Your task to perform on an android device: all mails in gmail Image 0: 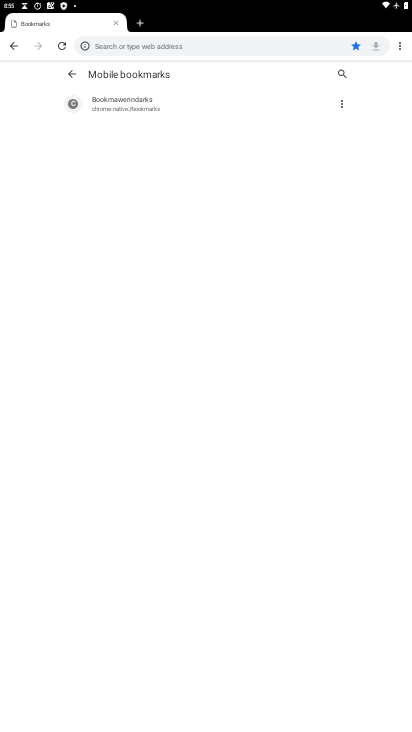
Step 0: click (249, 699)
Your task to perform on an android device: all mails in gmail Image 1: 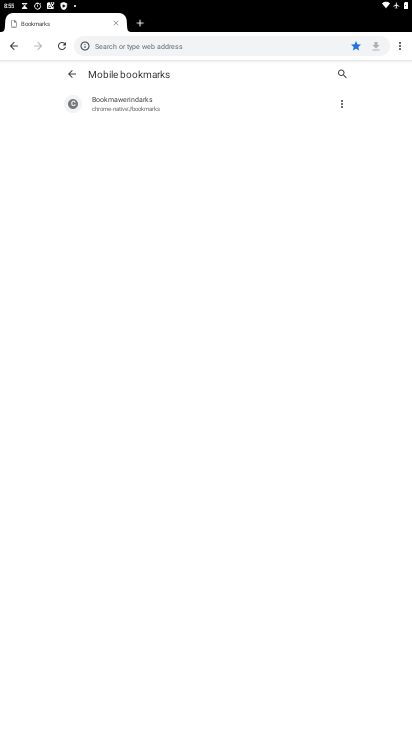
Step 1: press home button
Your task to perform on an android device: all mails in gmail Image 2: 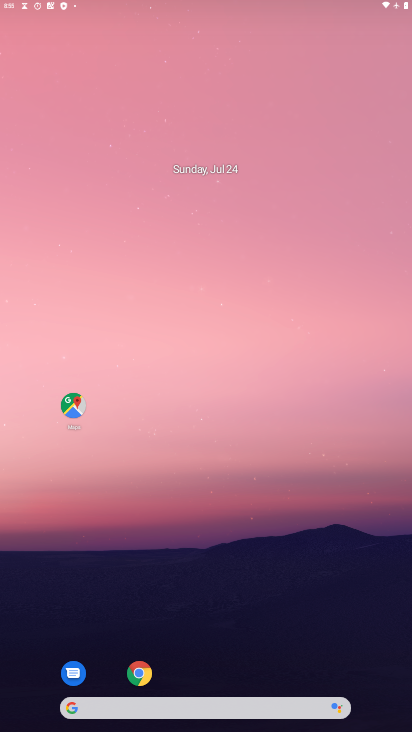
Step 2: press home button
Your task to perform on an android device: all mails in gmail Image 3: 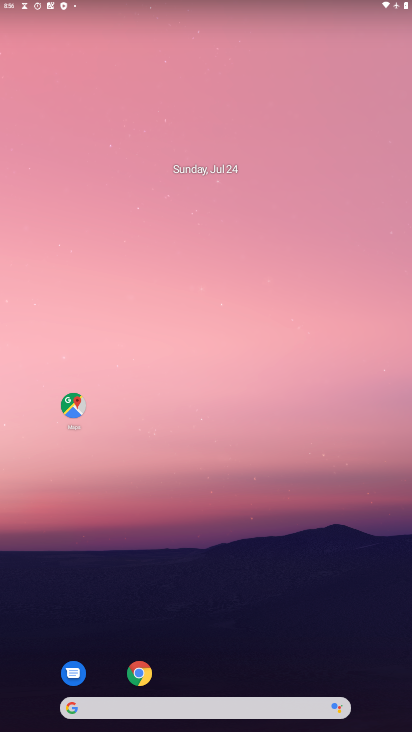
Step 3: drag from (243, 354) to (244, 194)
Your task to perform on an android device: all mails in gmail Image 4: 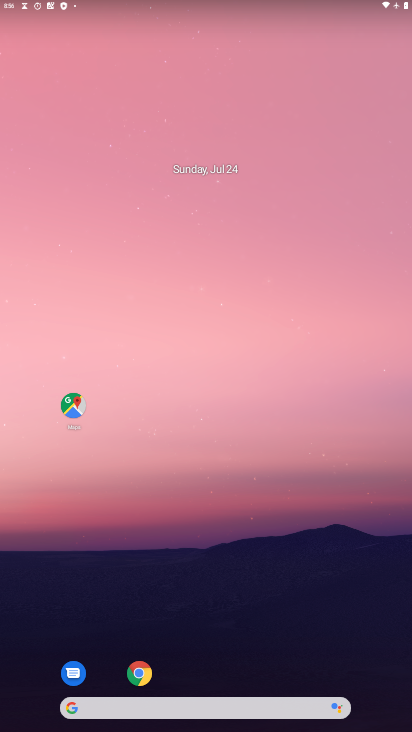
Step 4: drag from (188, 641) to (271, 229)
Your task to perform on an android device: all mails in gmail Image 5: 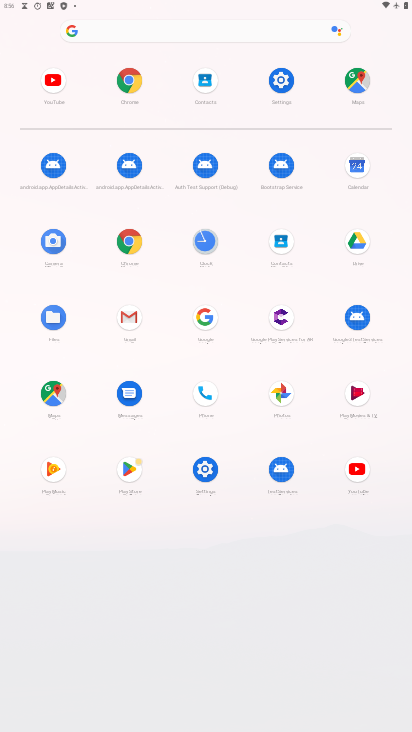
Step 5: click (132, 315)
Your task to perform on an android device: all mails in gmail Image 6: 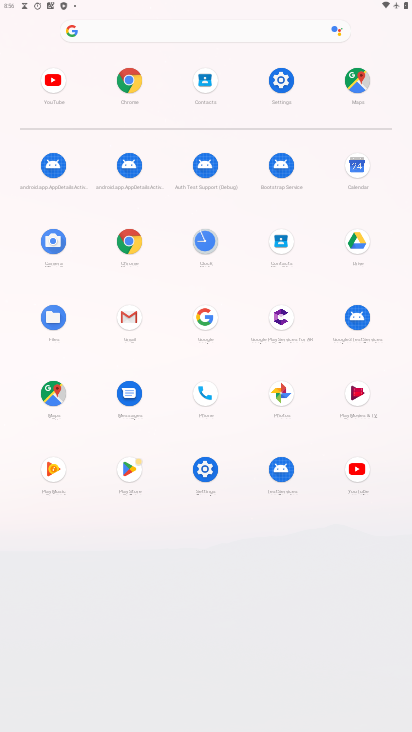
Step 6: click (132, 315)
Your task to perform on an android device: all mails in gmail Image 7: 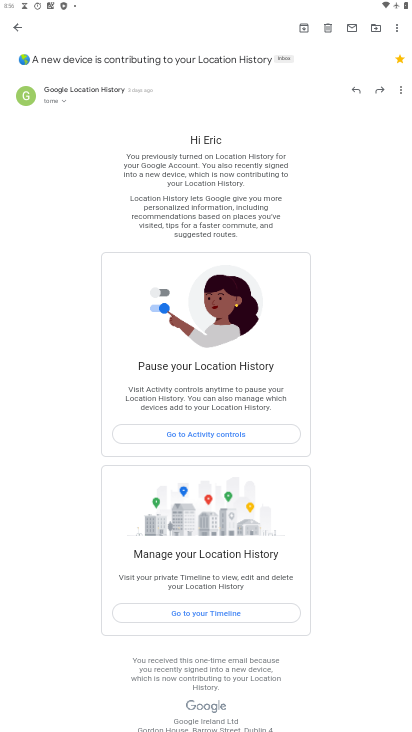
Step 7: drag from (277, 492) to (332, 130)
Your task to perform on an android device: all mails in gmail Image 8: 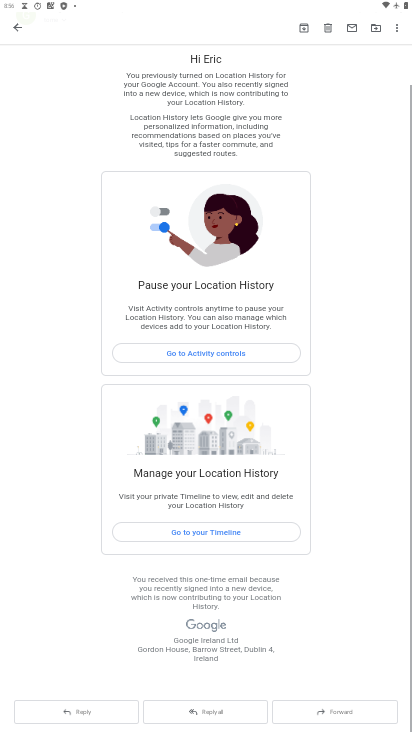
Step 8: drag from (142, 252) to (274, 729)
Your task to perform on an android device: all mails in gmail Image 9: 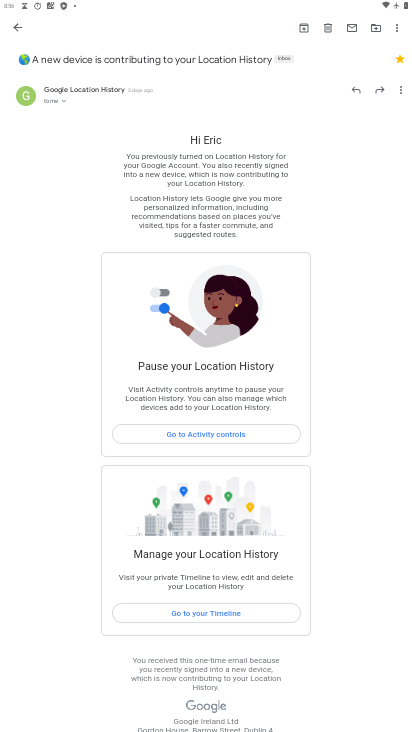
Step 9: click (16, 25)
Your task to perform on an android device: all mails in gmail Image 10: 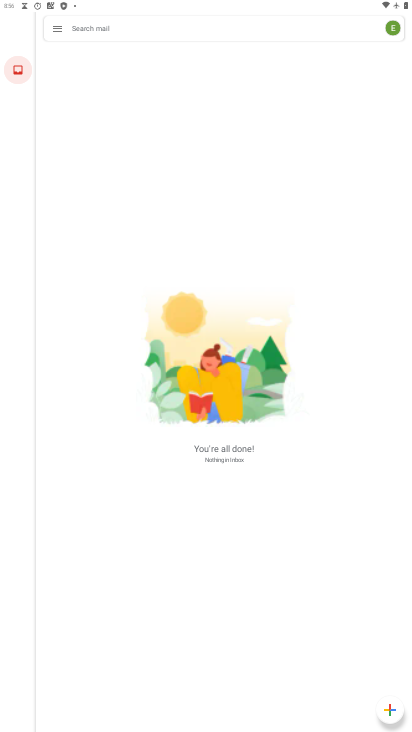
Step 10: click (49, 24)
Your task to perform on an android device: all mails in gmail Image 11: 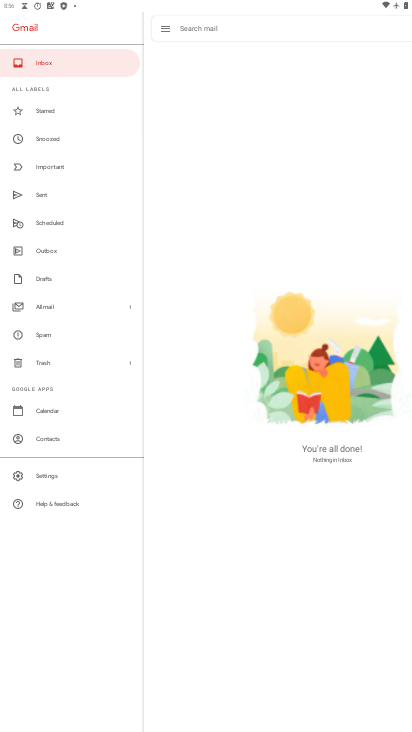
Step 11: click (59, 468)
Your task to perform on an android device: all mails in gmail Image 12: 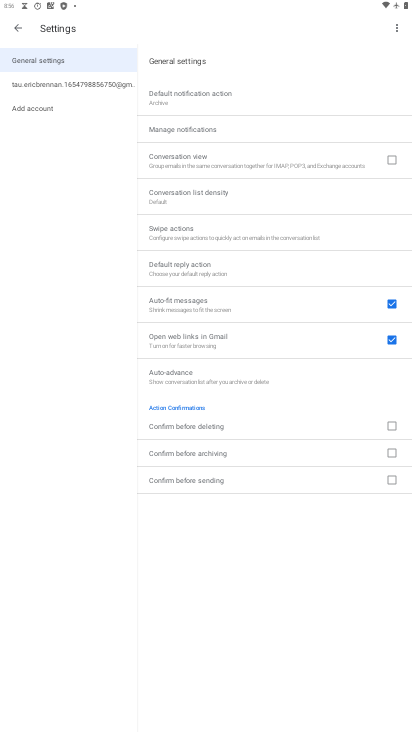
Step 12: drag from (244, 497) to (248, 178)
Your task to perform on an android device: all mails in gmail Image 13: 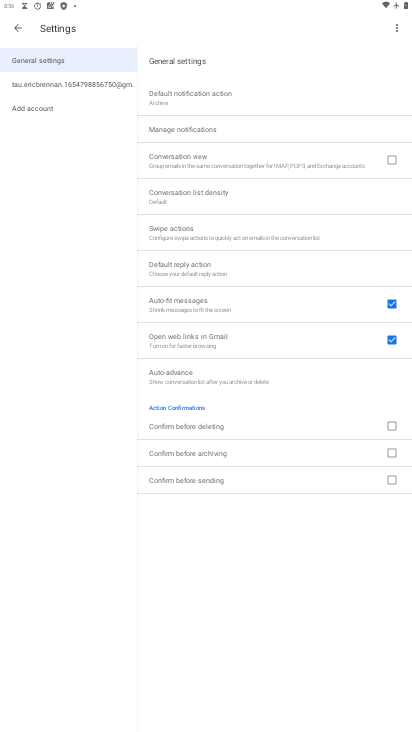
Step 13: click (86, 84)
Your task to perform on an android device: all mails in gmail Image 14: 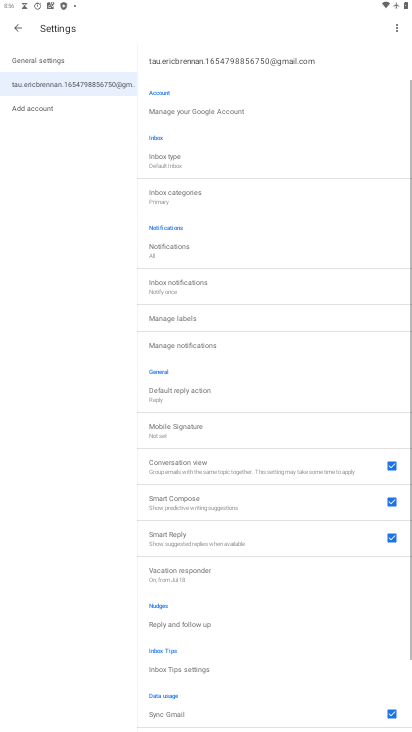
Step 14: click (18, 19)
Your task to perform on an android device: all mails in gmail Image 15: 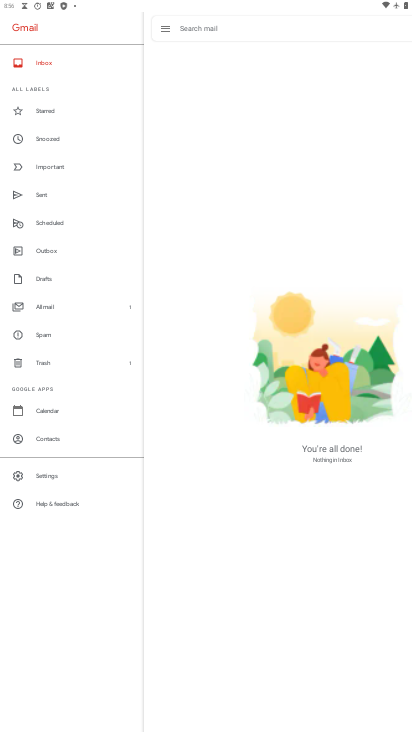
Step 15: click (151, 151)
Your task to perform on an android device: all mails in gmail Image 16: 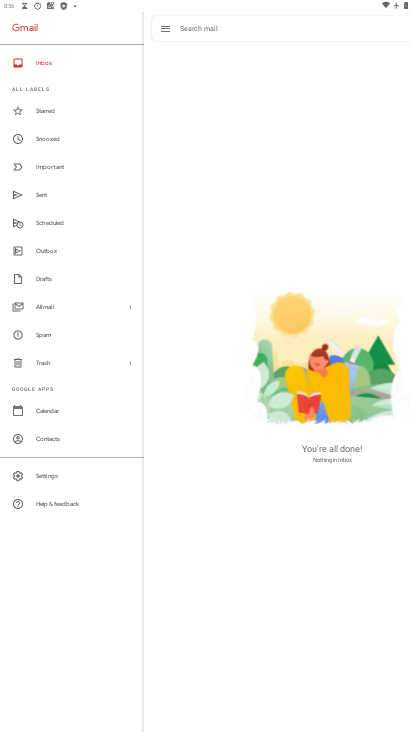
Step 16: drag from (60, 378) to (60, 612)
Your task to perform on an android device: all mails in gmail Image 17: 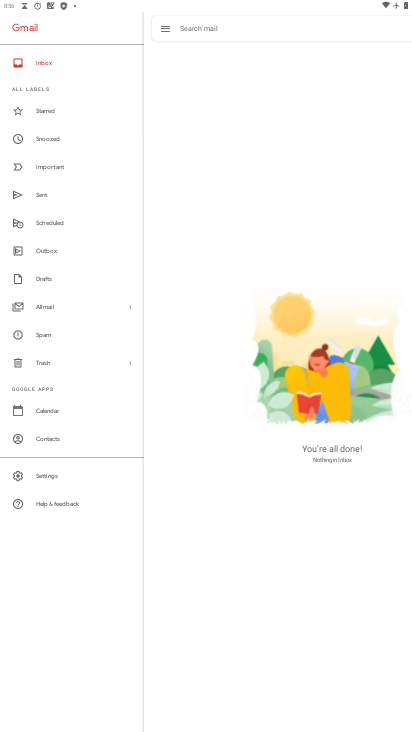
Step 17: drag from (82, 464) to (87, 353)
Your task to perform on an android device: all mails in gmail Image 18: 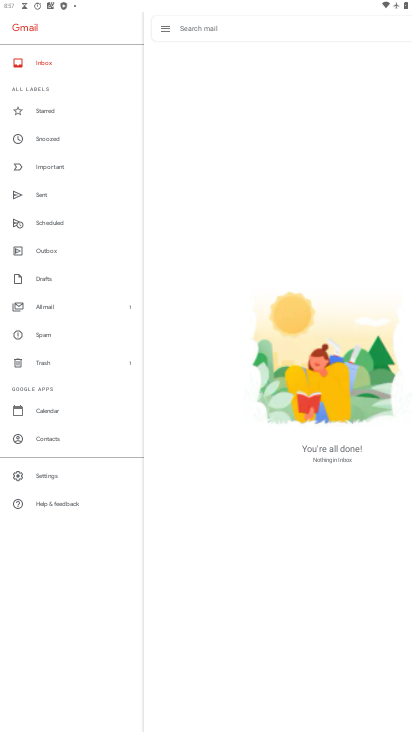
Step 18: click (60, 652)
Your task to perform on an android device: all mails in gmail Image 19: 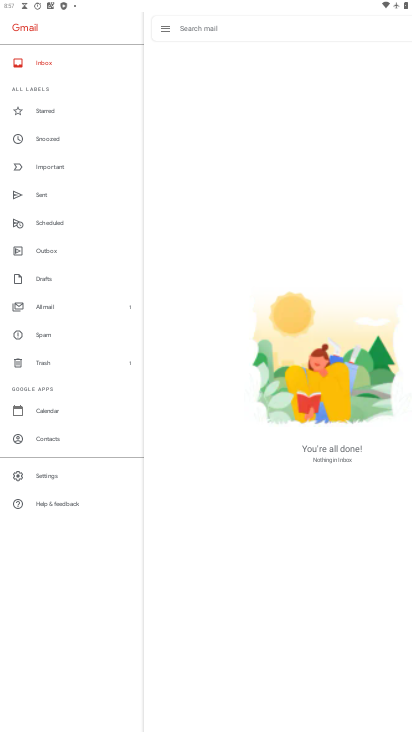
Step 19: drag from (58, 291) to (85, 671)
Your task to perform on an android device: all mails in gmail Image 20: 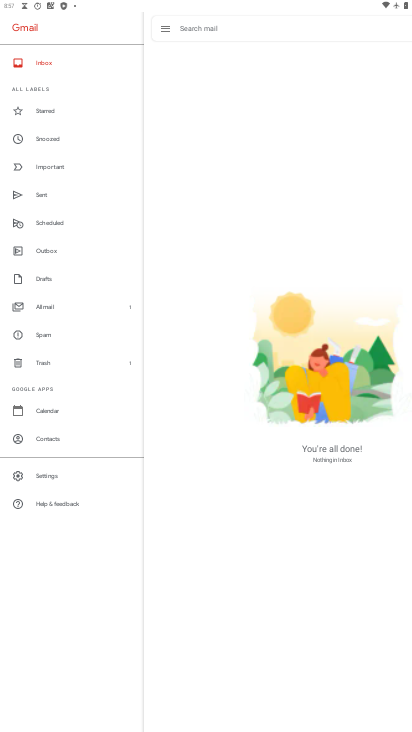
Step 20: click (49, 303)
Your task to perform on an android device: all mails in gmail Image 21: 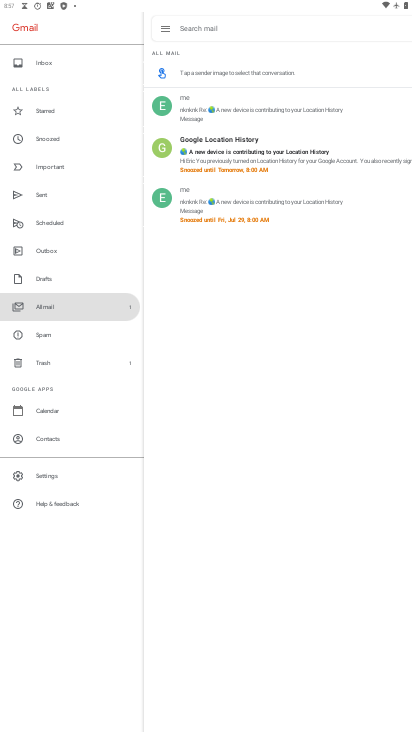
Step 21: drag from (201, 492) to (256, 256)
Your task to perform on an android device: all mails in gmail Image 22: 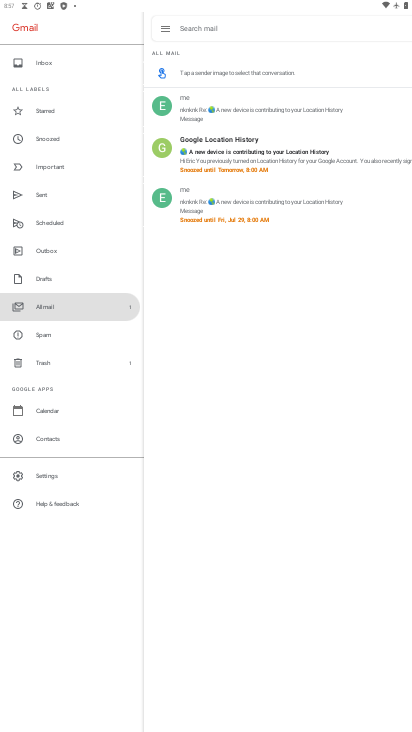
Step 22: drag from (214, 530) to (218, 714)
Your task to perform on an android device: all mails in gmail Image 23: 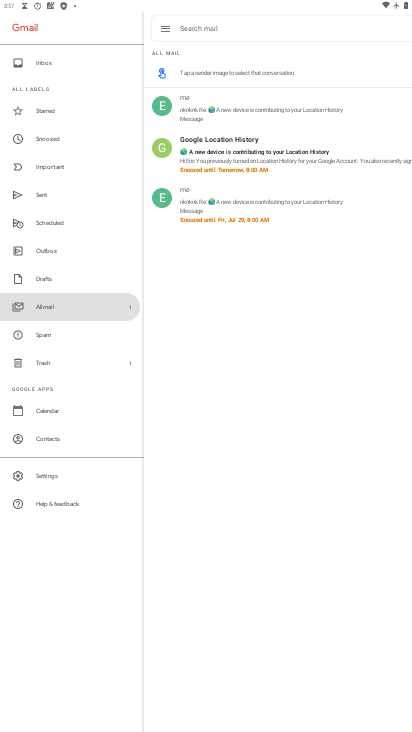
Step 23: click (43, 308)
Your task to perform on an android device: all mails in gmail Image 24: 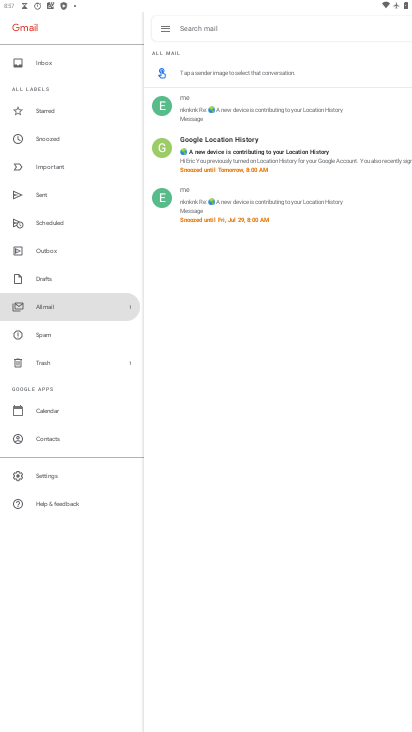
Step 24: drag from (292, 496) to (316, 239)
Your task to perform on an android device: all mails in gmail Image 25: 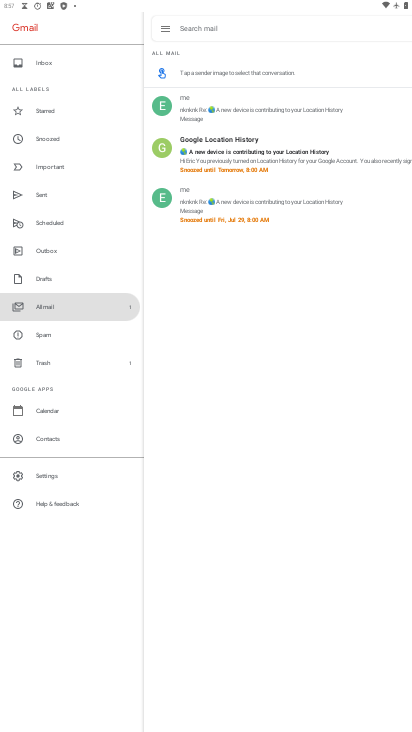
Step 25: drag from (280, 453) to (334, 169)
Your task to perform on an android device: all mails in gmail Image 26: 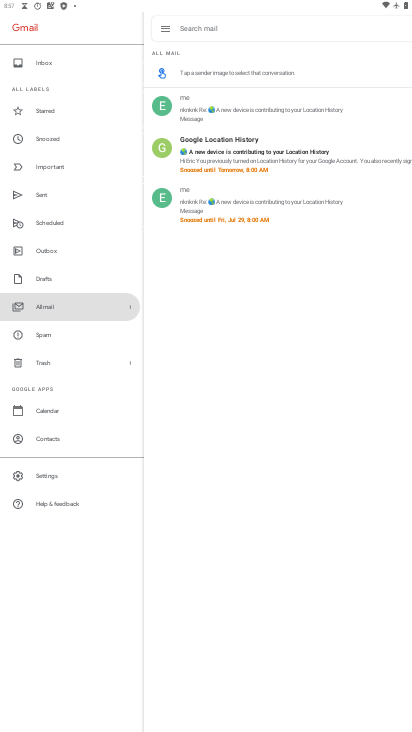
Step 26: click (39, 306)
Your task to perform on an android device: all mails in gmail Image 27: 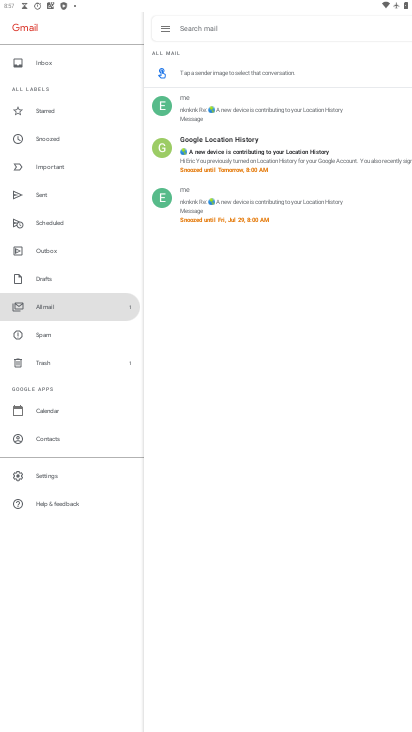
Step 27: click (33, 303)
Your task to perform on an android device: all mails in gmail Image 28: 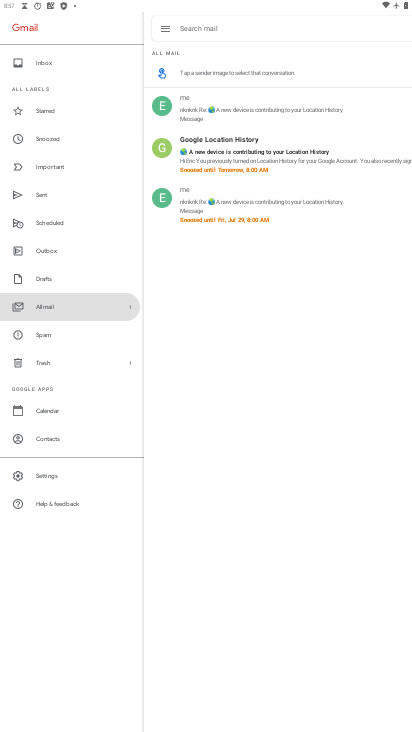
Step 28: task complete